Your task to perform on an android device: open sync settings in chrome Image 0: 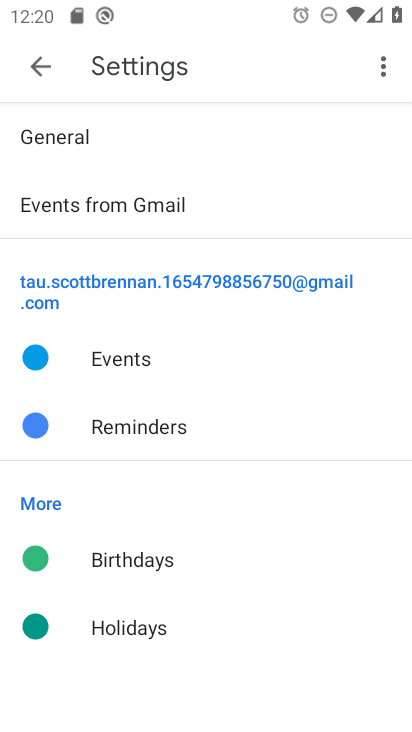
Step 0: press home button
Your task to perform on an android device: open sync settings in chrome Image 1: 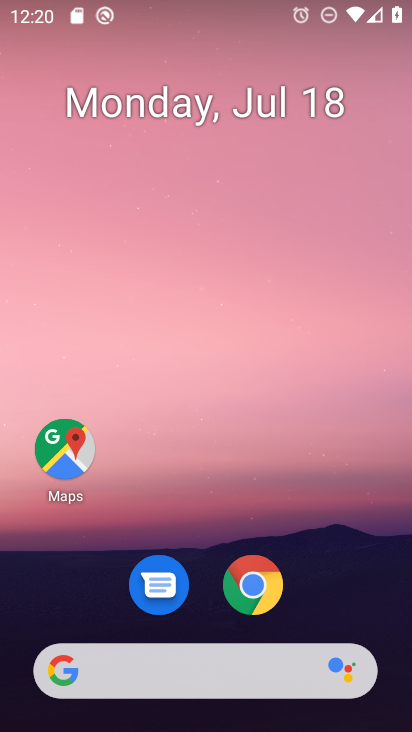
Step 1: click (246, 579)
Your task to perform on an android device: open sync settings in chrome Image 2: 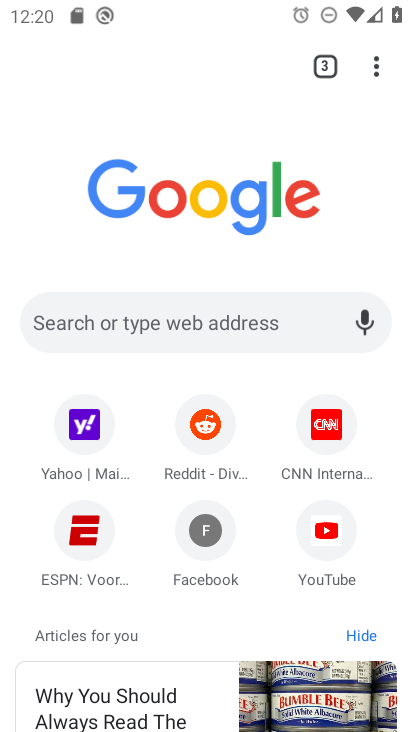
Step 2: click (373, 61)
Your task to perform on an android device: open sync settings in chrome Image 3: 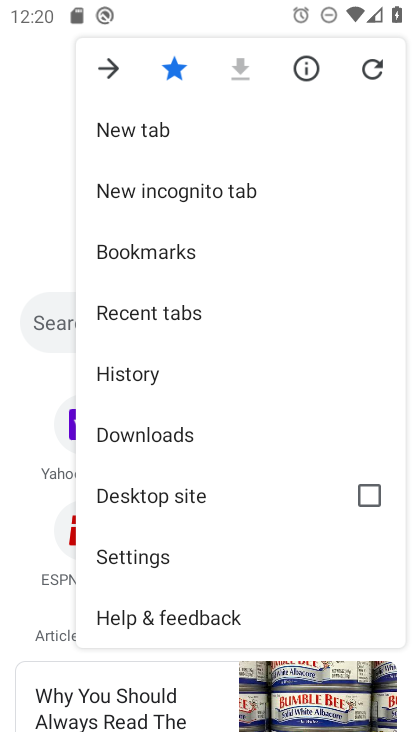
Step 3: click (154, 553)
Your task to perform on an android device: open sync settings in chrome Image 4: 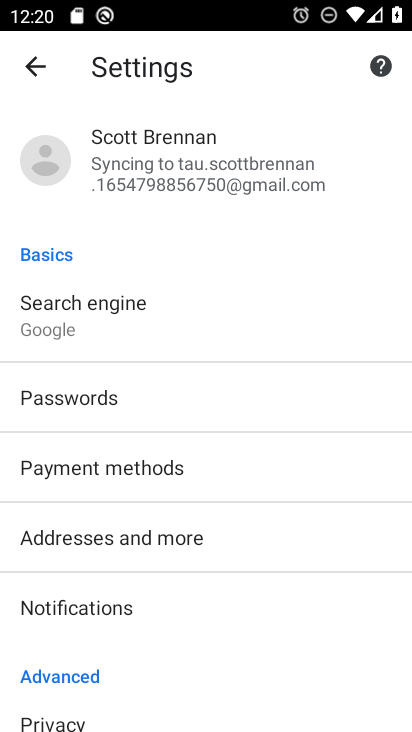
Step 4: click (232, 162)
Your task to perform on an android device: open sync settings in chrome Image 5: 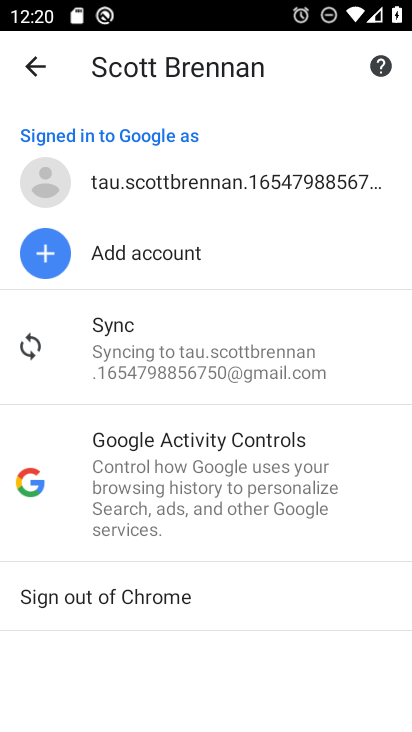
Step 5: click (194, 344)
Your task to perform on an android device: open sync settings in chrome Image 6: 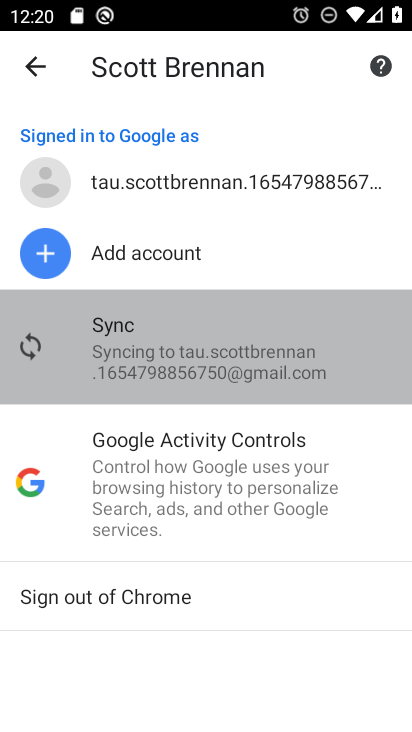
Step 6: click (194, 344)
Your task to perform on an android device: open sync settings in chrome Image 7: 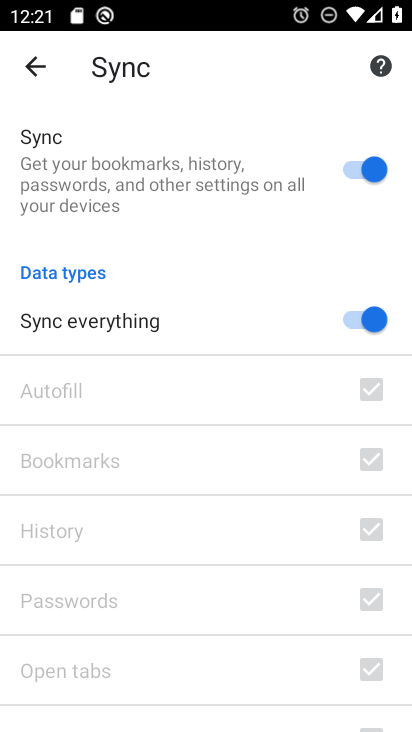
Step 7: task complete